Your task to perform on an android device: Go to Google maps Image 0: 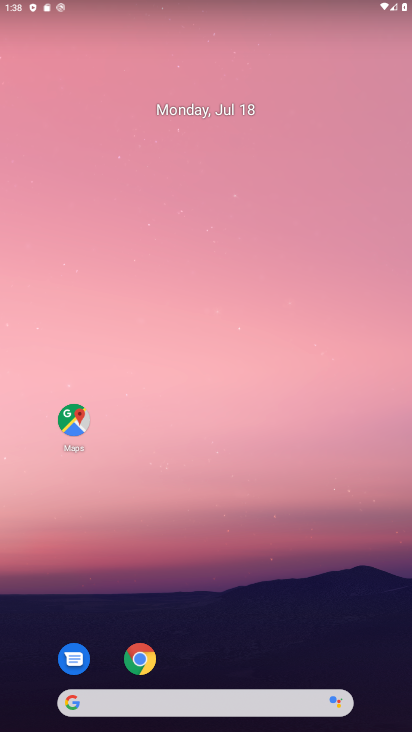
Step 0: click (71, 409)
Your task to perform on an android device: Go to Google maps Image 1: 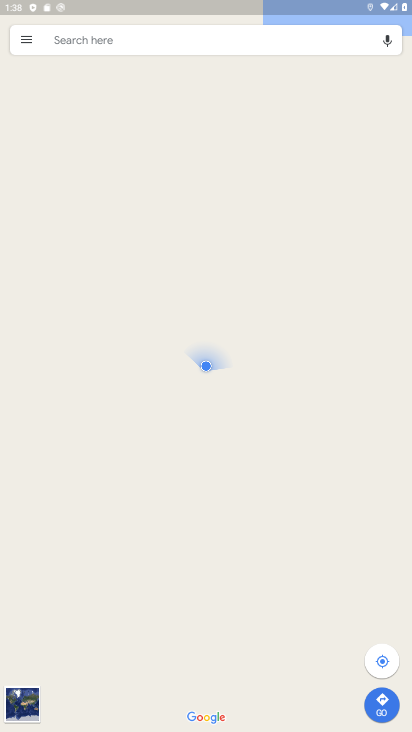
Step 1: task complete